Your task to perform on an android device: search for starred emails in the gmail app Image 0: 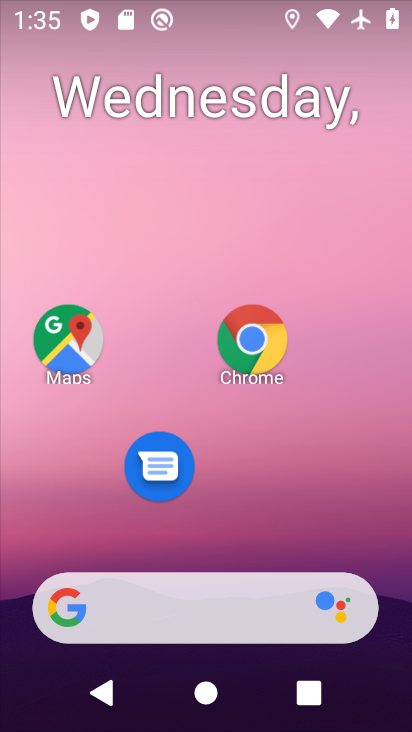
Step 0: drag from (160, 633) to (283, 148)
Your task to perform on an android device: search for starred emails in the gmail app Image 1: 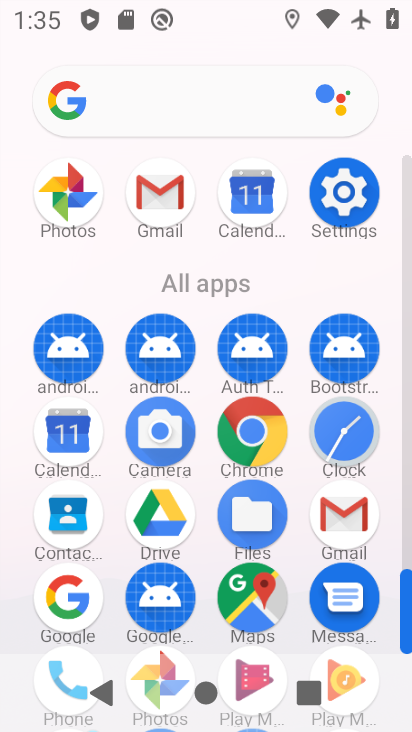
Step 1: click (171, 194)
Your task to perform on an android device: search for starred emails in the gmail app Image 2: 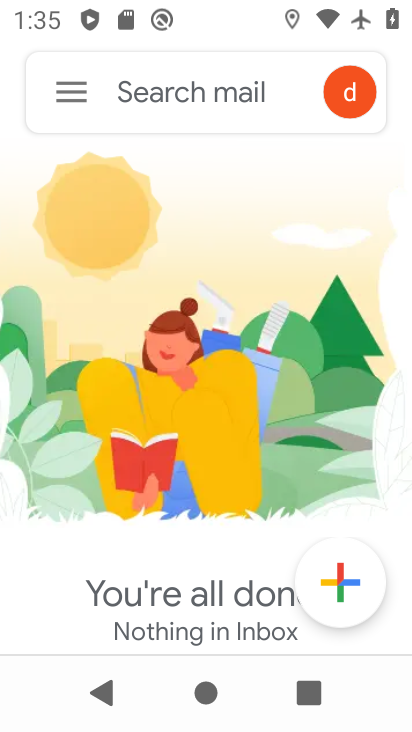
Step 2: click (55, 90)
Your task to perform on an android device: search for starred emails in the gmail app Image 3: 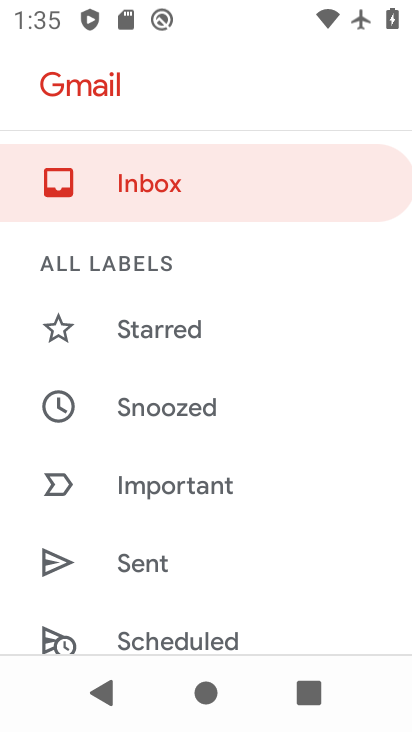
Step 3: click (173, 330)
Your task to perform on an android device: search for starred emails in the gmail app Image 4: 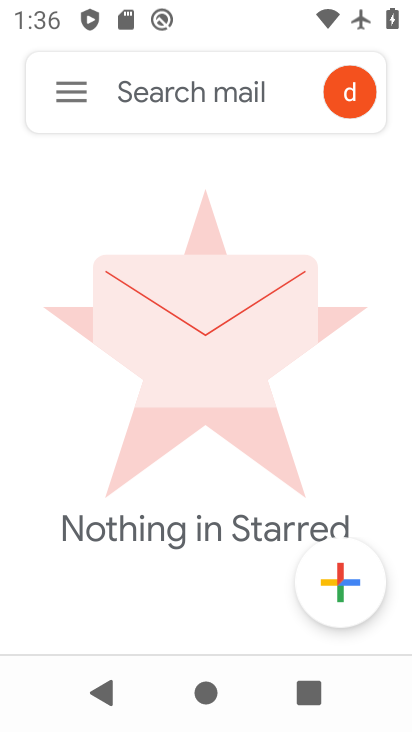
Step 4: task complete